Your task to perform on an android device: Go to Yahoo.com Image 0: 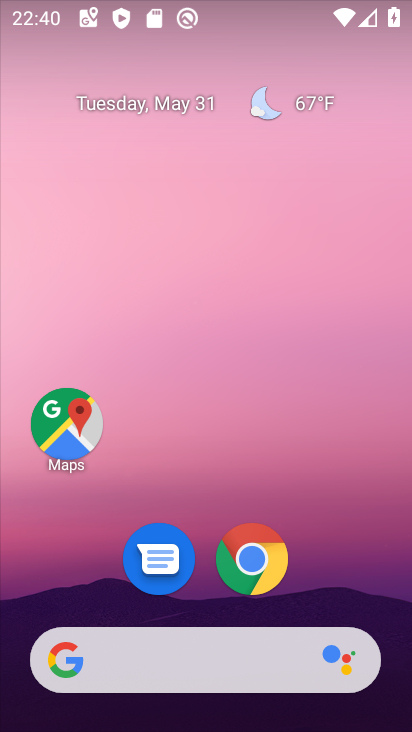
Step 0: click (255, 555)
Your task to perform on an android device: Go to Yahoo.com Image 1: 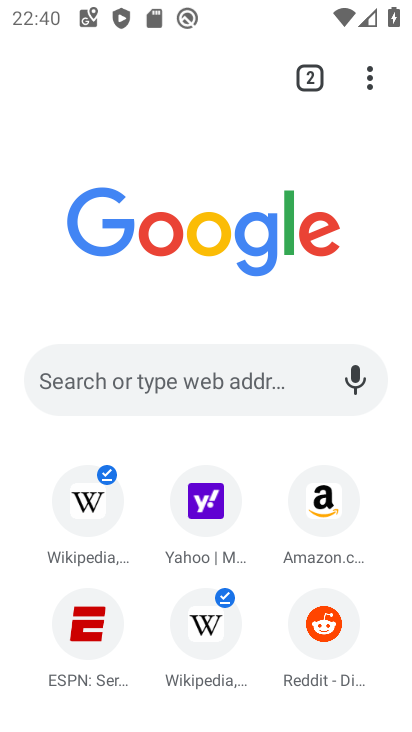
Step 1: click (220, 501)
Your task to perform on an android device: Go to Yahoo.com Image 2: 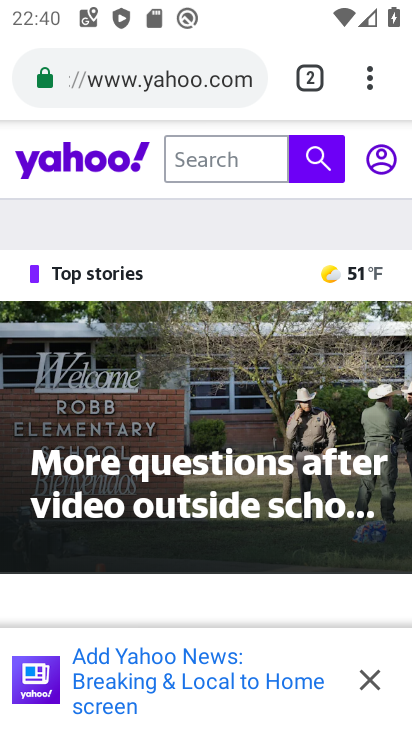
Step 2: task complete